Your task to perform on an android device: show emergency info Image 0: 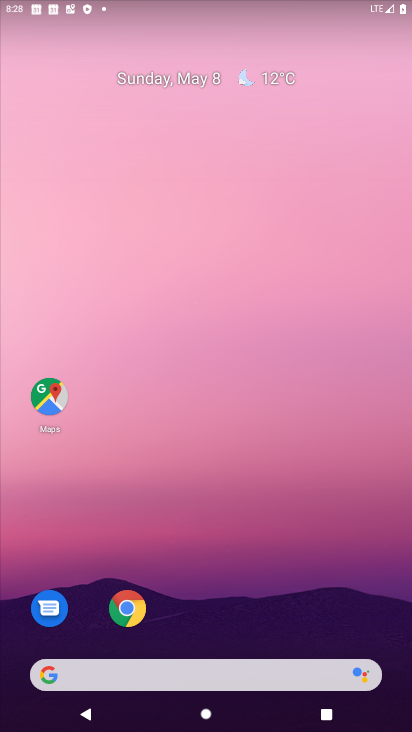
Step 0: drag from (315, 571) to (4, 29)
Your task to perform on an android device: show emergency info Image 1: 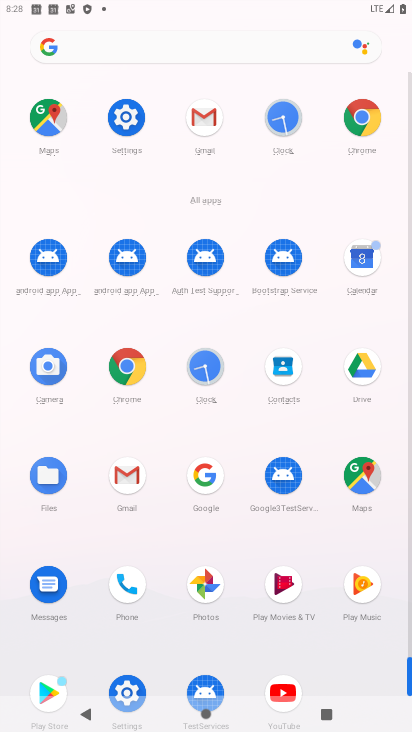
Step 1: click (123, 111)
Your task to perform on an android device: show emergency info Image 2: 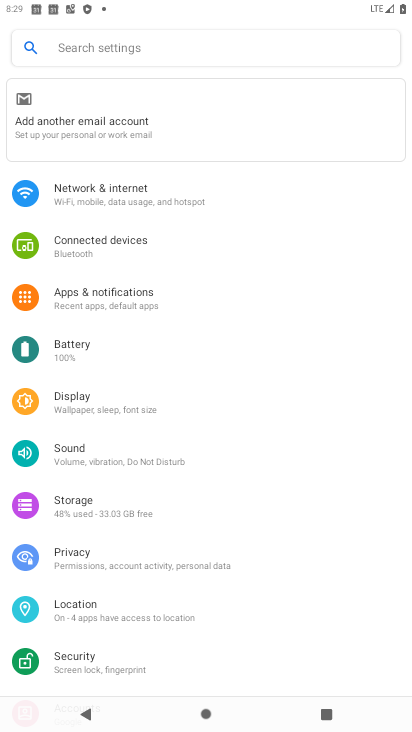
Step 2: drag from (208, 622) to (255, 139)
Your task to perform on an android device: show emergency info Image 3: 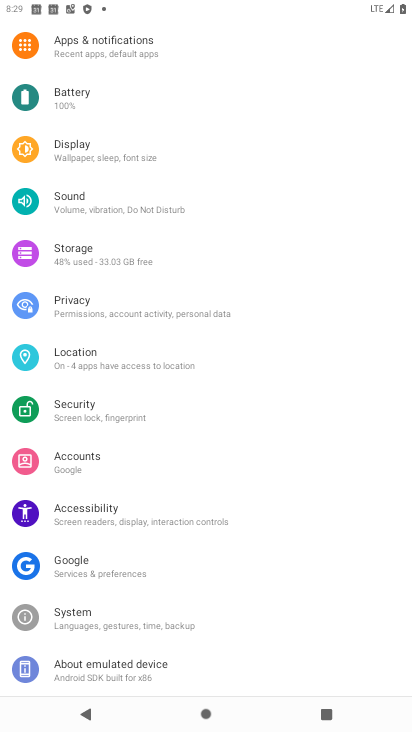
Step 3: drag from (247, 554) to (235, 171)
Your task to perform on an android device: show emergency info Image 4: 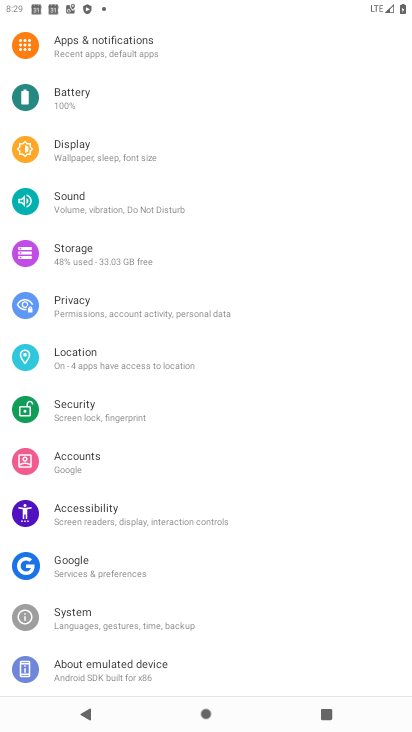
Step 4: click (117, 673)
Your task to perform on an android device: show emergency info Image 5: 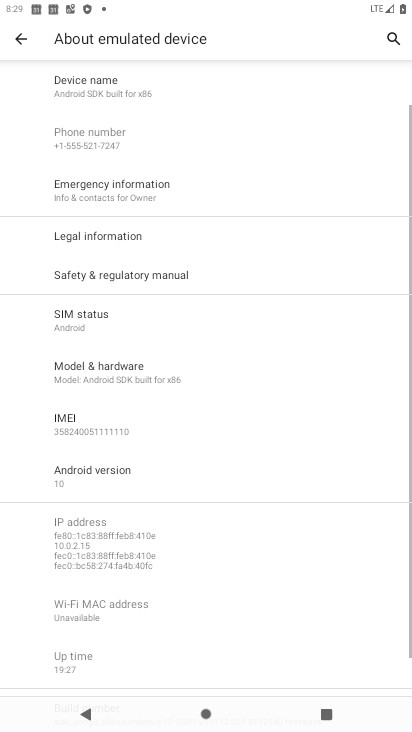
Step 5: click (115, 197)
Your task to perform on an android device: show emergency info Image 6: 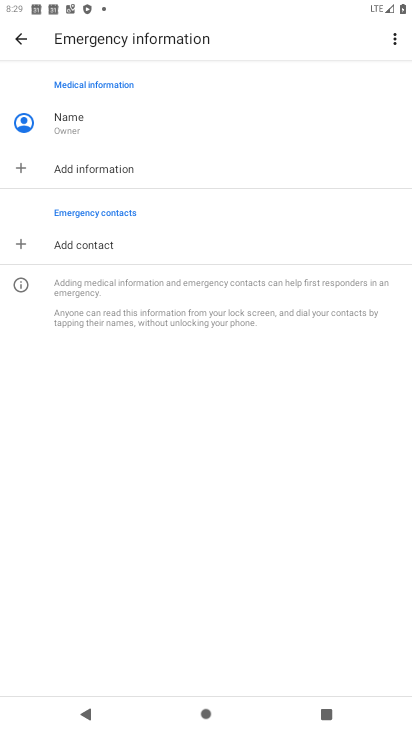
Step 6: task complete